Your task to perform on an android device: add a contact Image 0: 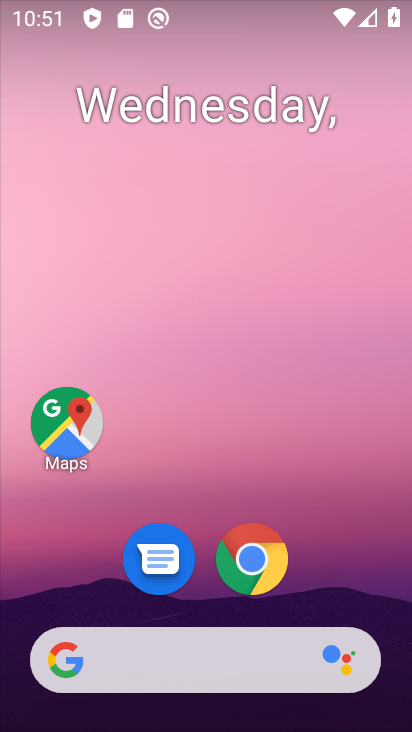
Step 0: drag from (226, 619) to (252, 238)
Your task to perform on an android device: add a contact Image 1: 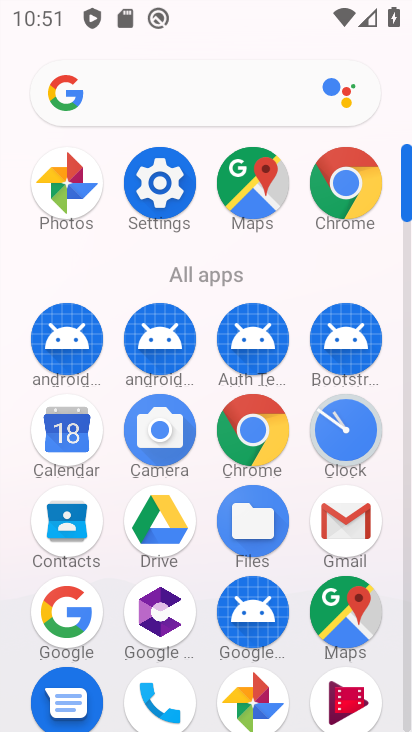
Step 1: click (64, 528)
Your task to perform on an android device: add a contact Image 2: 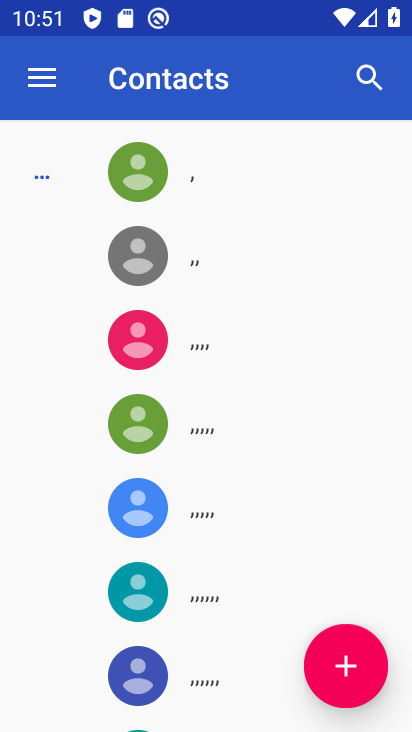
Step 2: click (347, 673)
Your task to perform on an android device: add a contact Image 3: 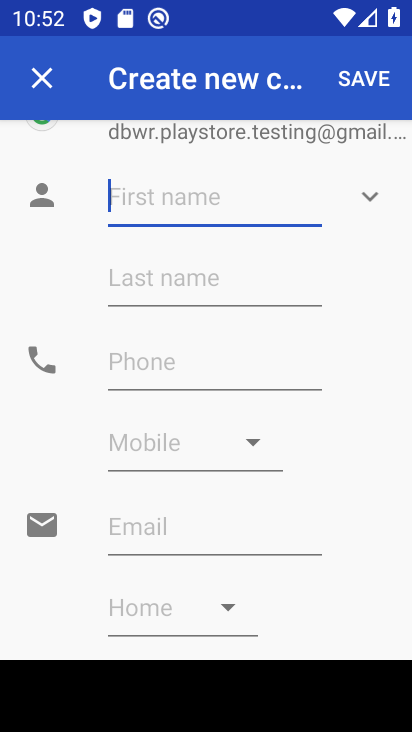
Step 3: type "sdsc"
Your task to perform on an android device: add a contact Image 4: 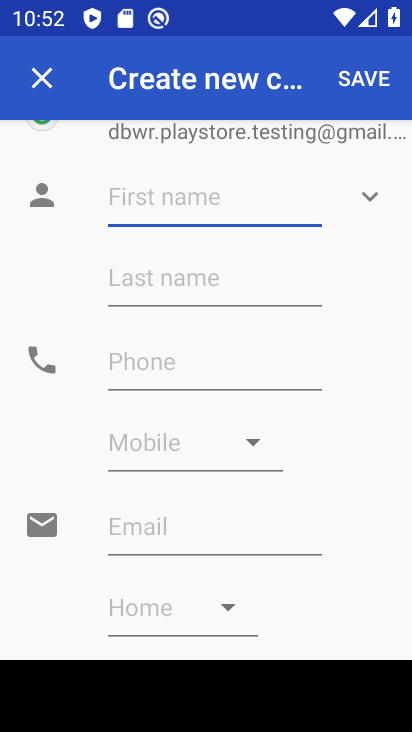
Step 4: click (150, 286)
Your task to perform on an android device: add a contact Image 5: 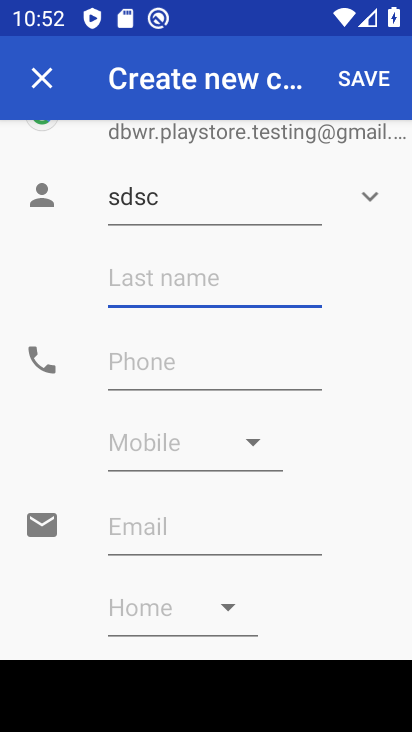
Step 5: type "dfdd"
Your task to perform on an android device: add a contact Image 6: 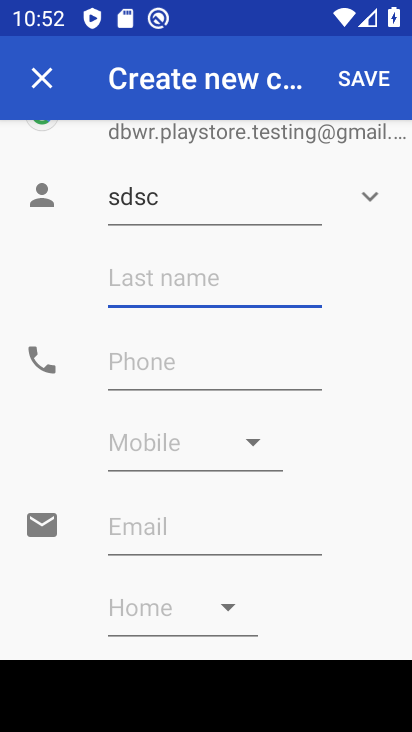
Step 6: click (119, 361)
Your task to perform on an android device: add a contact Image 7: 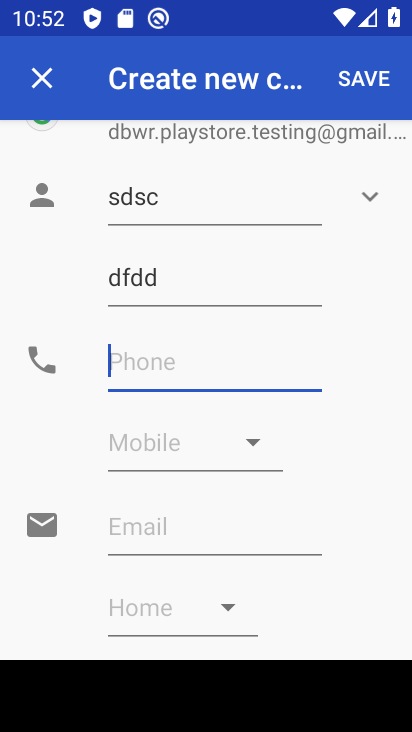
Step 7: type "445454"
Your task to perform on an android device: add a contact Image 8: 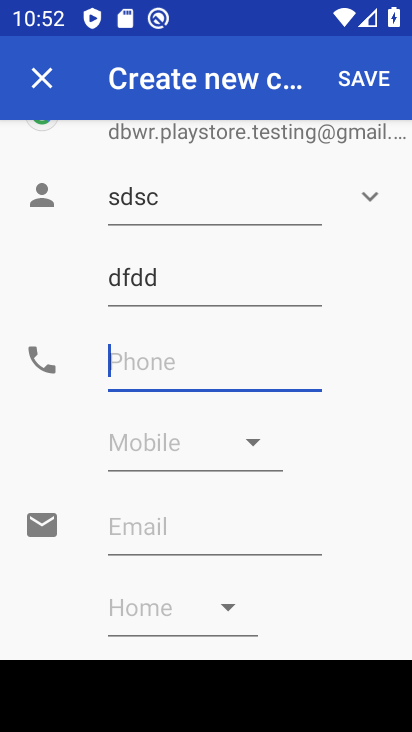
Step 8: click (152, 444)
Your task to perform on an android device: add a contact Image 9: 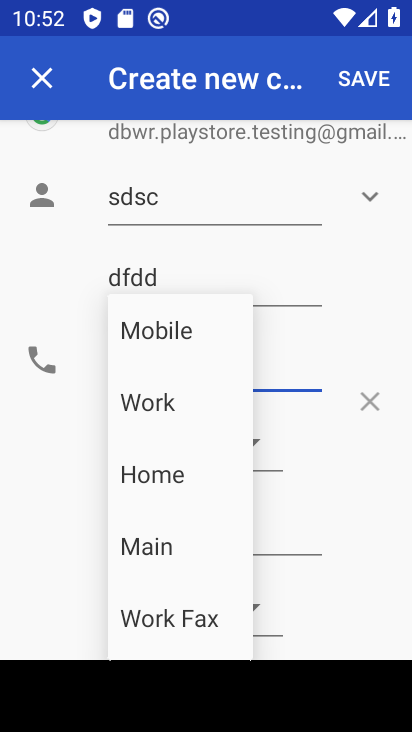
Step 9: click (368, 85)
Your task to perform on an android device: add a contact Image 10: 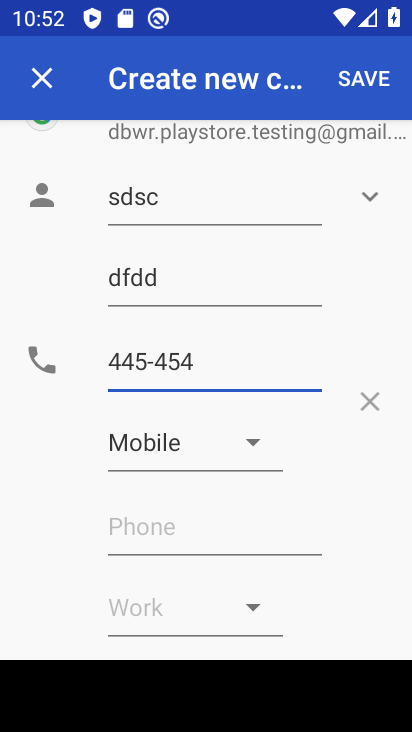
Step 10: click (363, 74)
Your task to perform on an android device: add a contact Image 11: 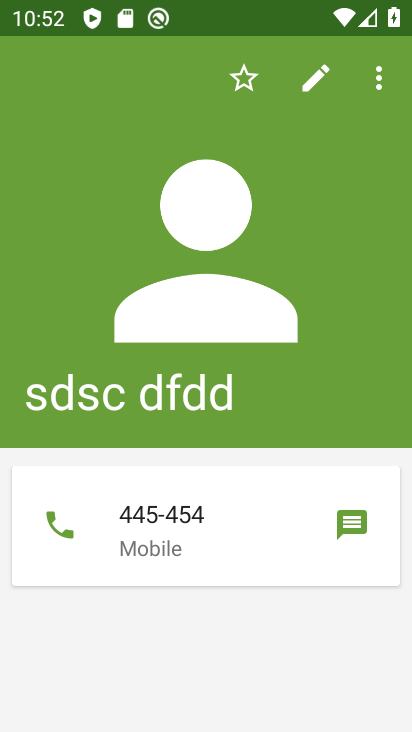
Step 11: task complete